Your task to perform on an android device: Go to eBay Image 0: 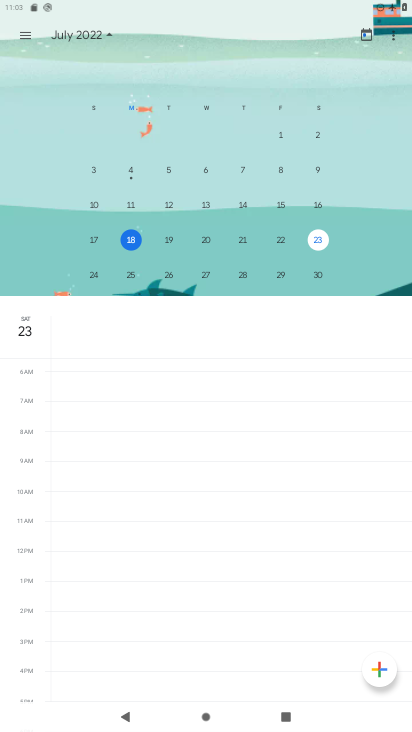
Step 0: press home button
Your task to perform on an android device: Go to eBay Image 1: 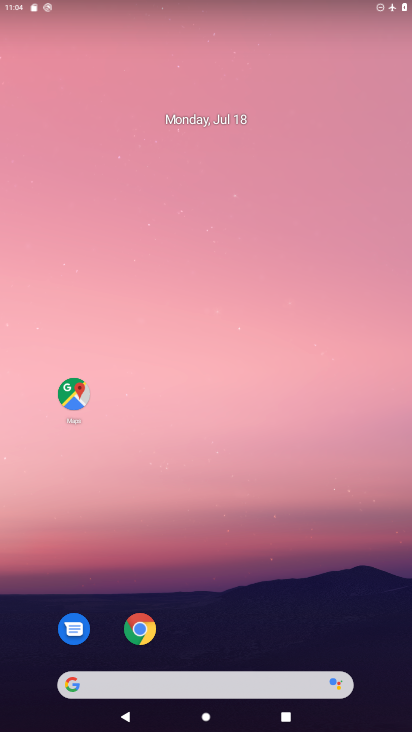
Step 1: drag from (283, 602) to (263, 109)
Your task to perform on an android device: Go to eBay Image 2: 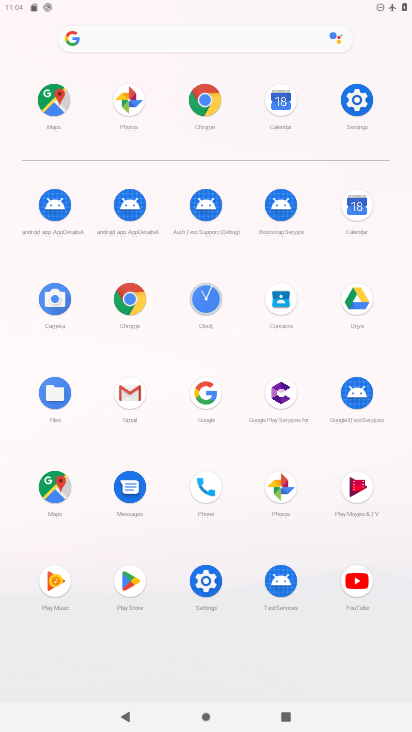
Step 2: click (207, 97)
Your task to perform on an android device: Go to eBay Image 3: 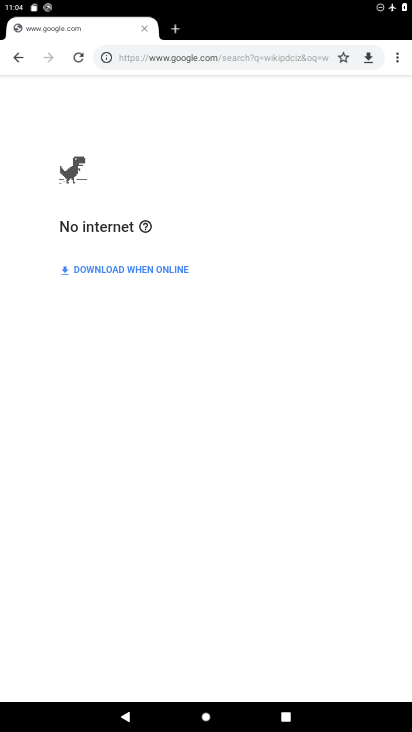
Step 3: click (226, 65)
Your task to perform on an android device: Go to eBay Image 4: 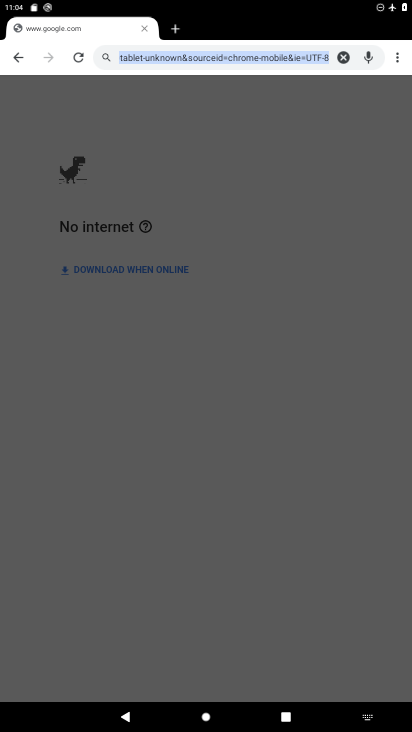
Step 4: type "ebay"
Your task to perform on an android device: Go to eBay Image 5: 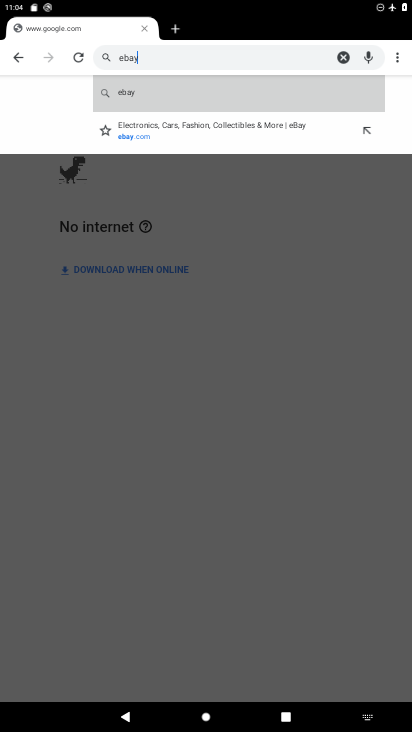
Step 5: click (176, 102)
Your task to perform on an android device: Go to eBay Image 6: 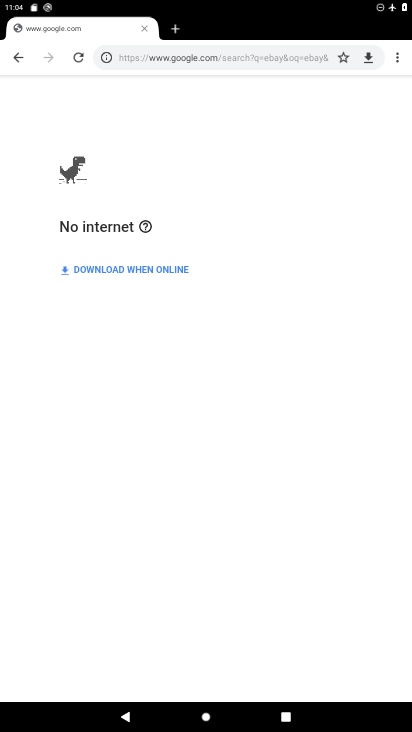
Step 6: task complete